Your task to perform on an android device: check storage Image 0: 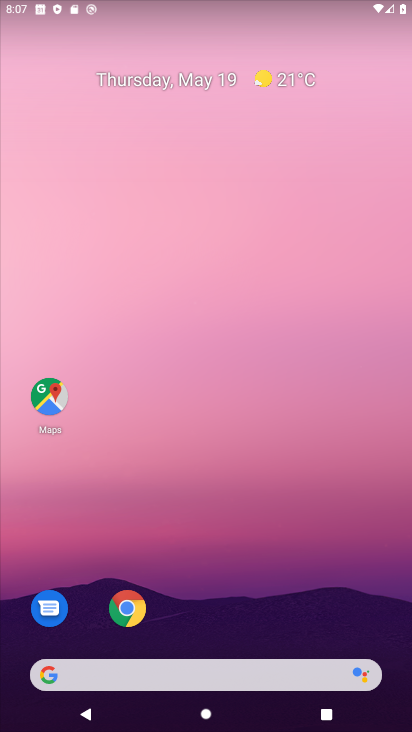
Step 0: drag from (225, 567) to (109, 110)
Your task to perform on an android device: check storage Image 1: 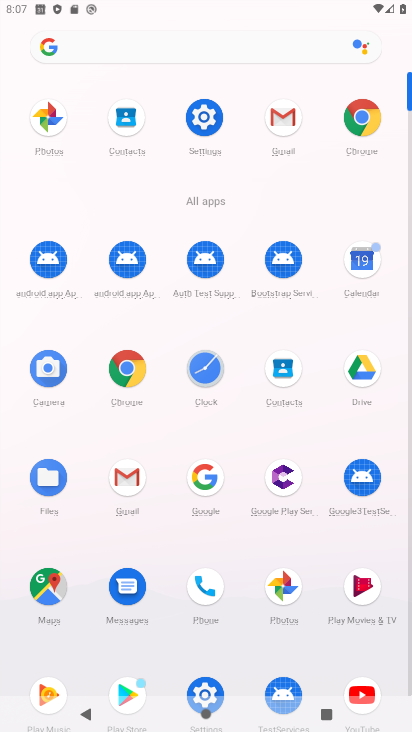
Step 1: click (202, 114)
Your task to perform on an android device: check storage Image 2: 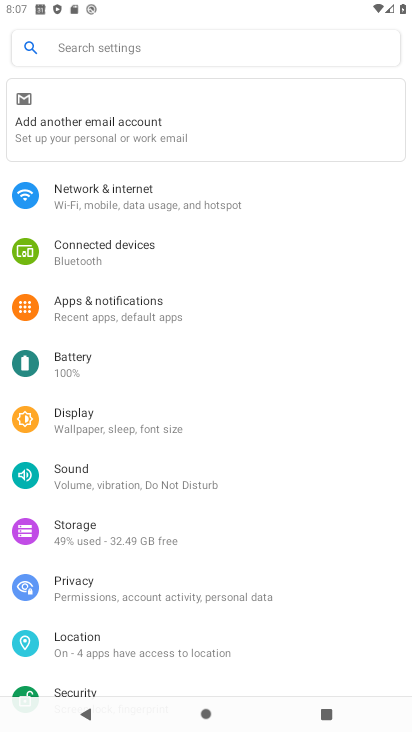
Step 2: click (82, 528)
Your task to perform on an android device: check storage Image 3: 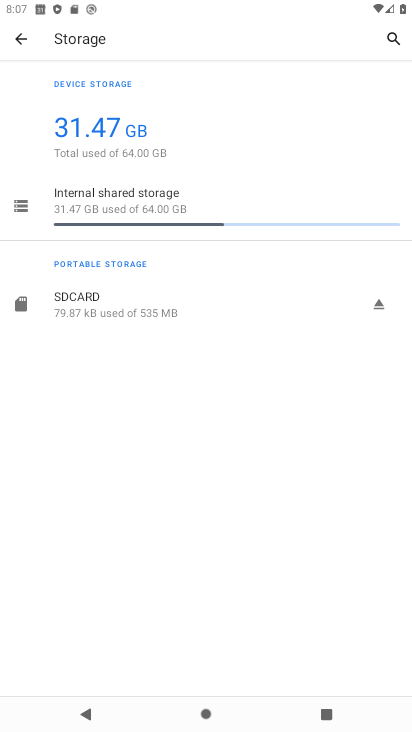
Step 3: task complete